Your task to perform on an android device: turn on improve location accuracy Image 0: 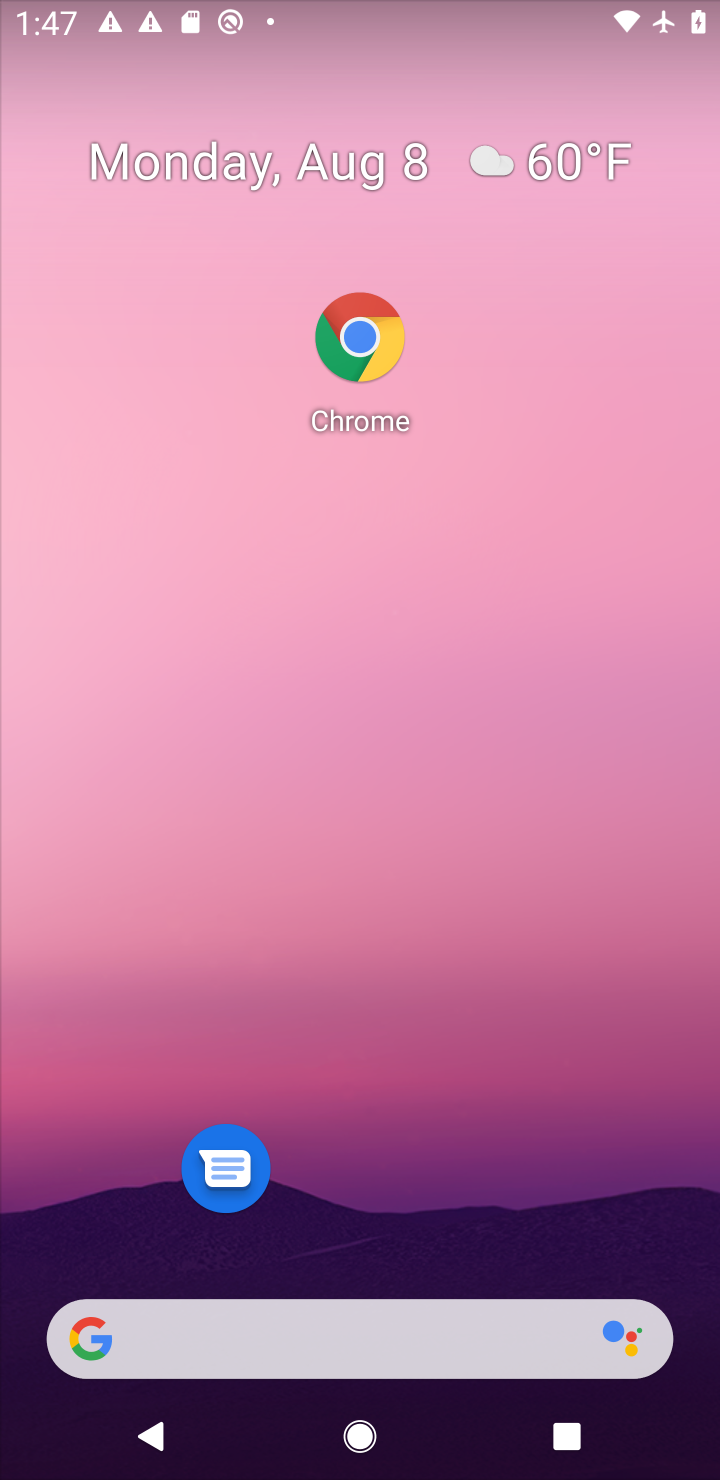
Step 0: drag from (444, 1259) to (384, 290)
Your task to perform on an android device: turn on improve location accuracy Image 1: 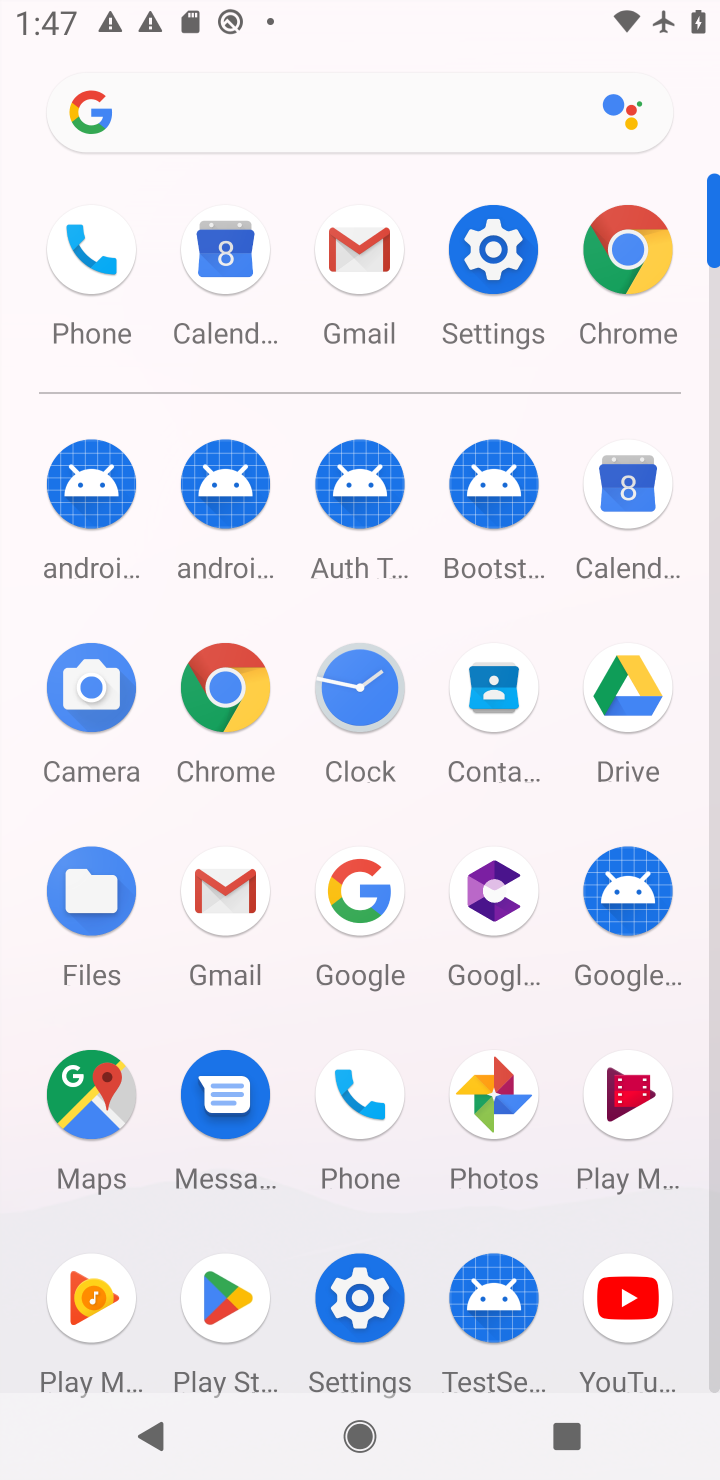
Step 1: click (383, 1330)
Your task to perform on an android device: turn on improve location accuracy Image 2: 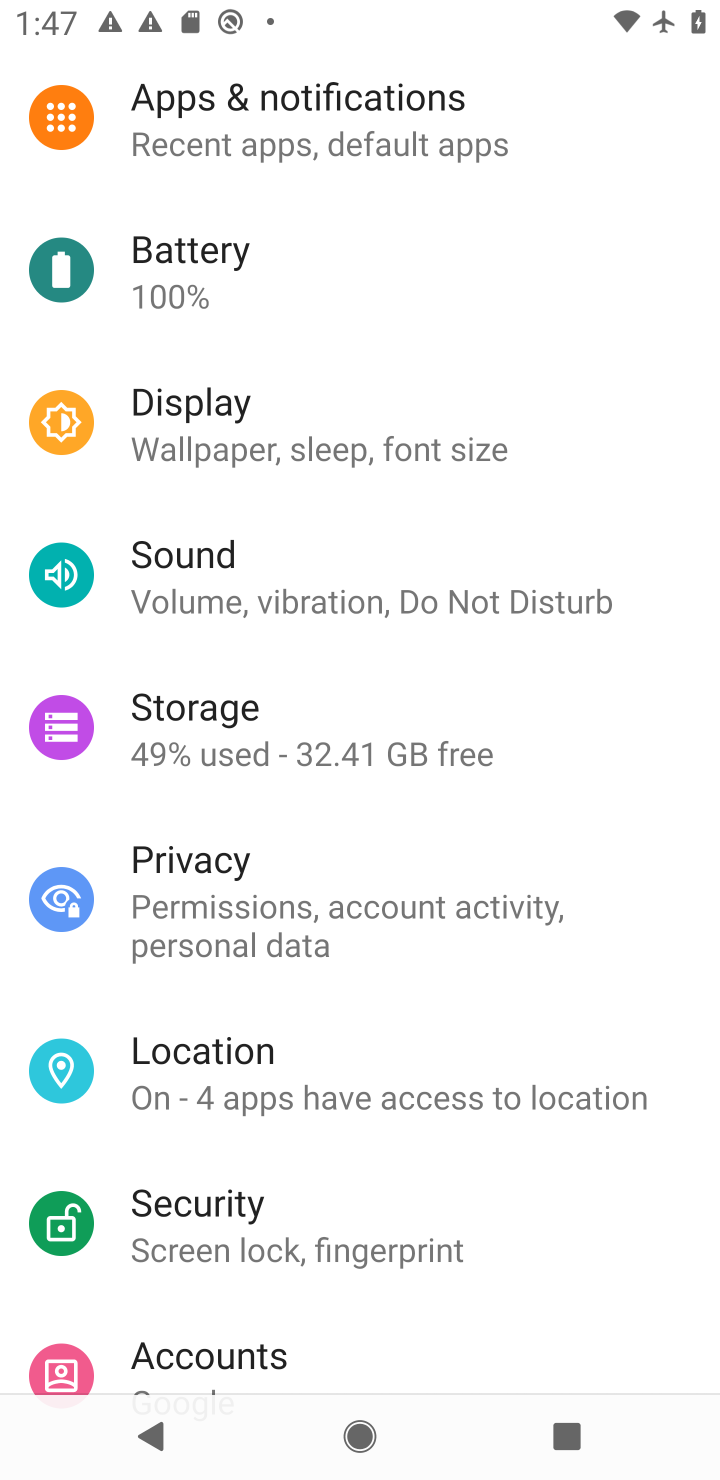
Step 2: click (432, 908)
Your task to perform on an android device: turn on improve location accuracy Image 3: 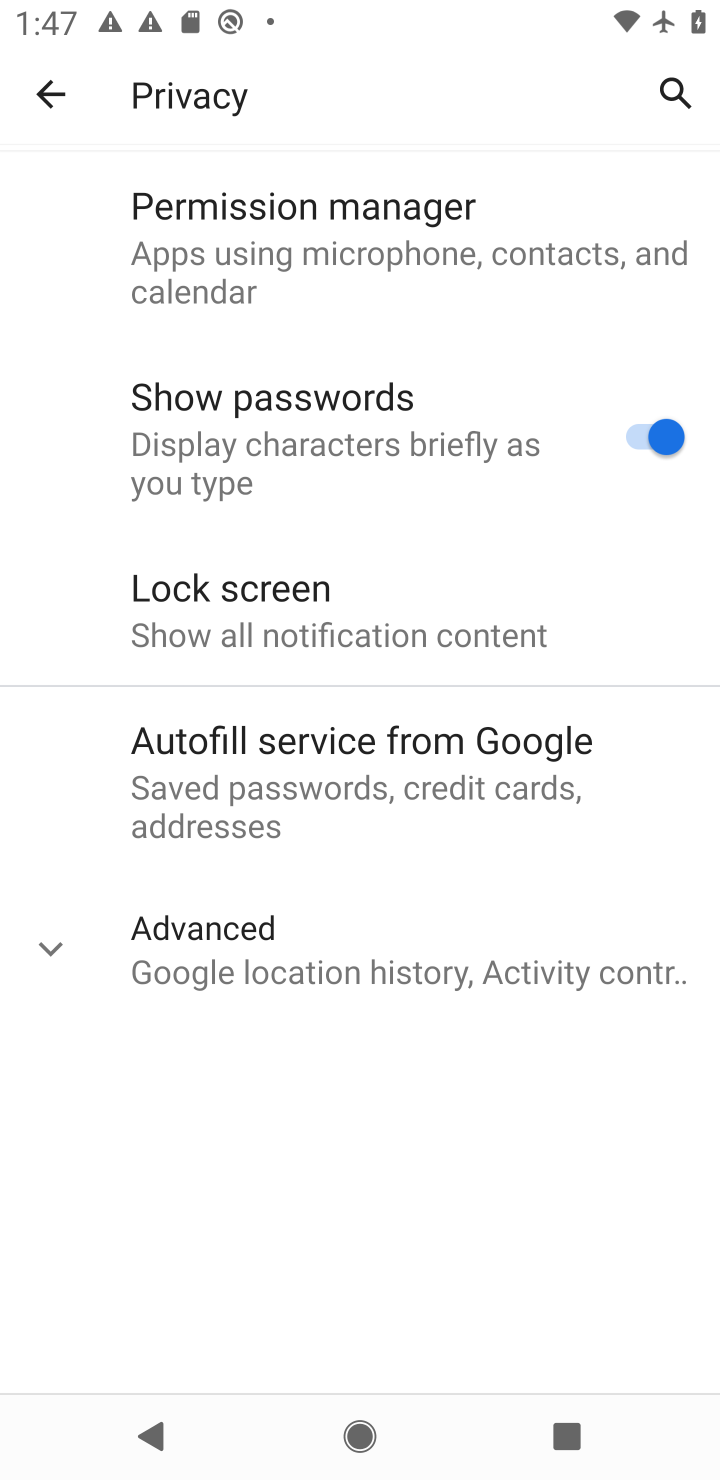
Step 3: click (67, 124)
Your task to perform on an android device: turn on improve location accuracy Image 4: 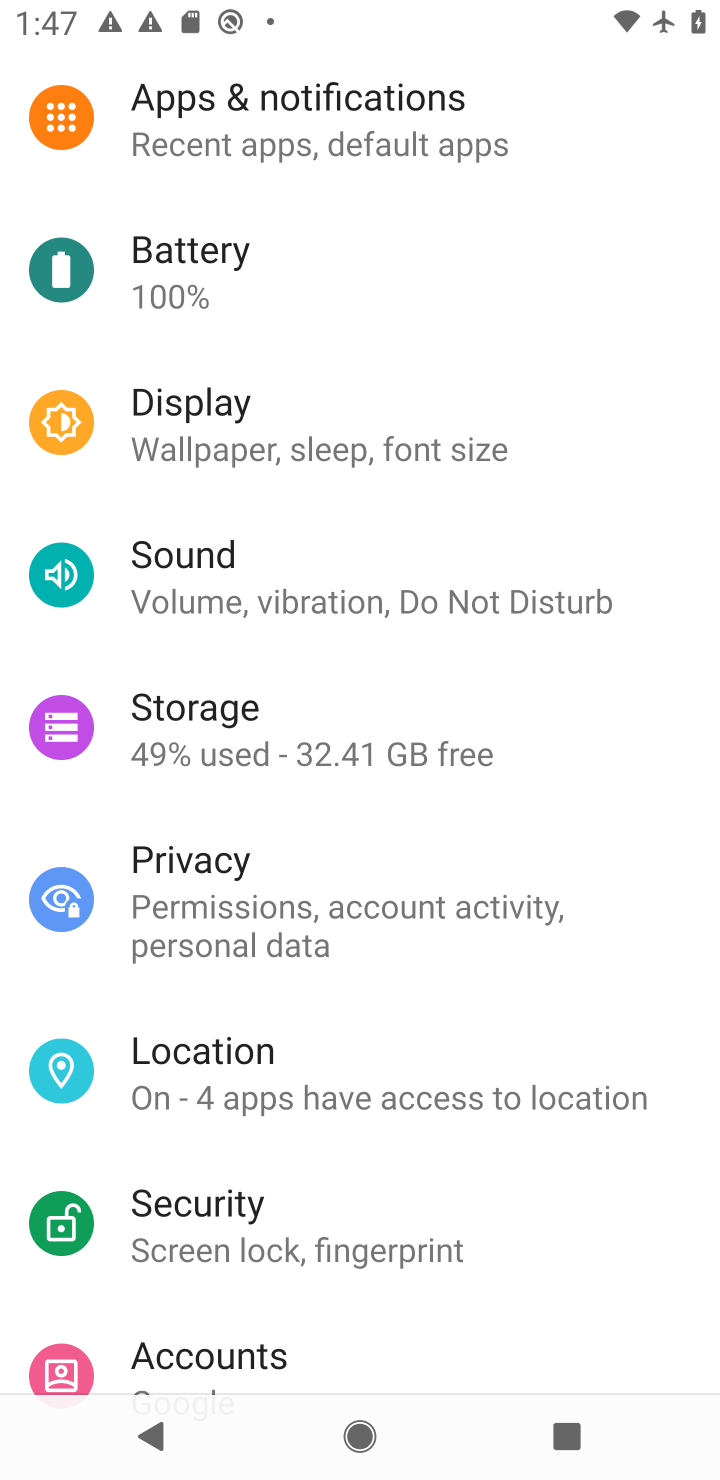
Step 4: click (223, 1077)
Your task to perform on an android device: turn on improve location accuracy Image 5: 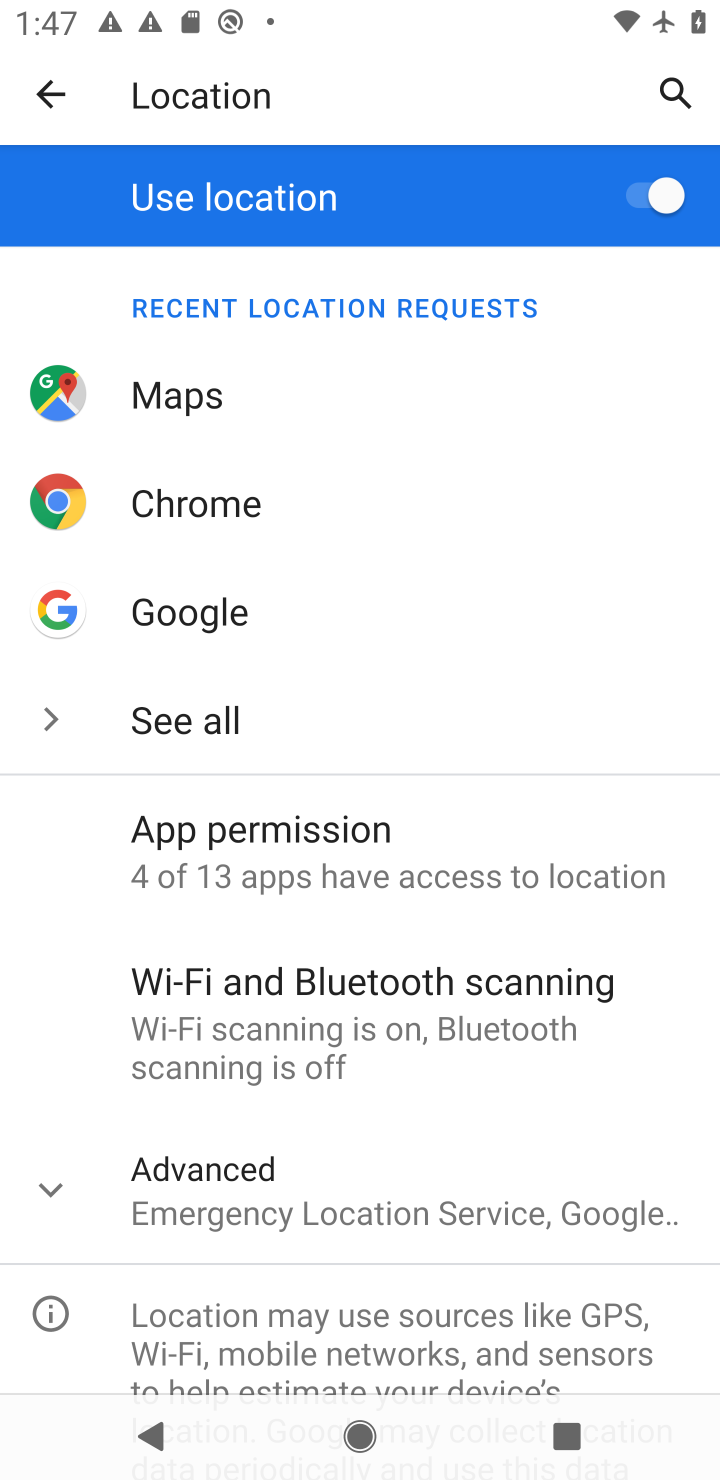
Step 5: task complete